Your task to perform on an android device: Show me recent news Image 0: 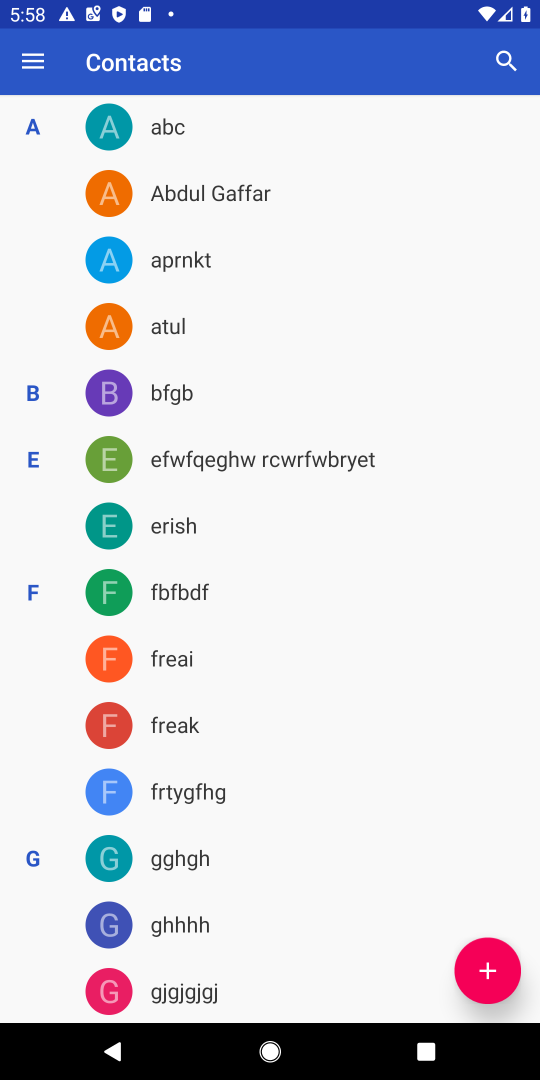
Step 0: press home button
Your task to perform on an android device: Show me recent news Image 1: 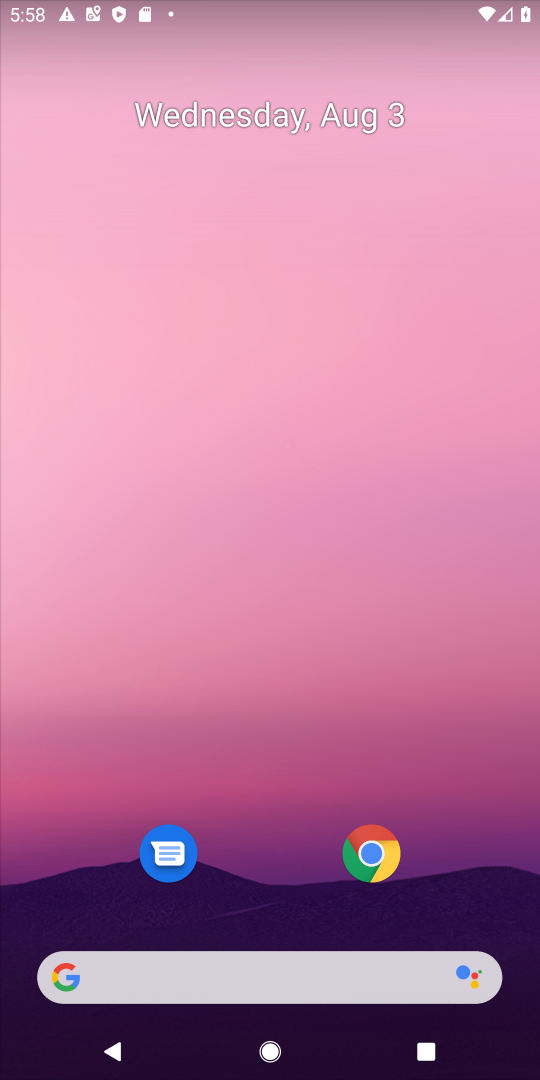
Step 1: drag from (478, 839) to (499, 298)
Your task to perform on an android device: Show me recent news Image 2: 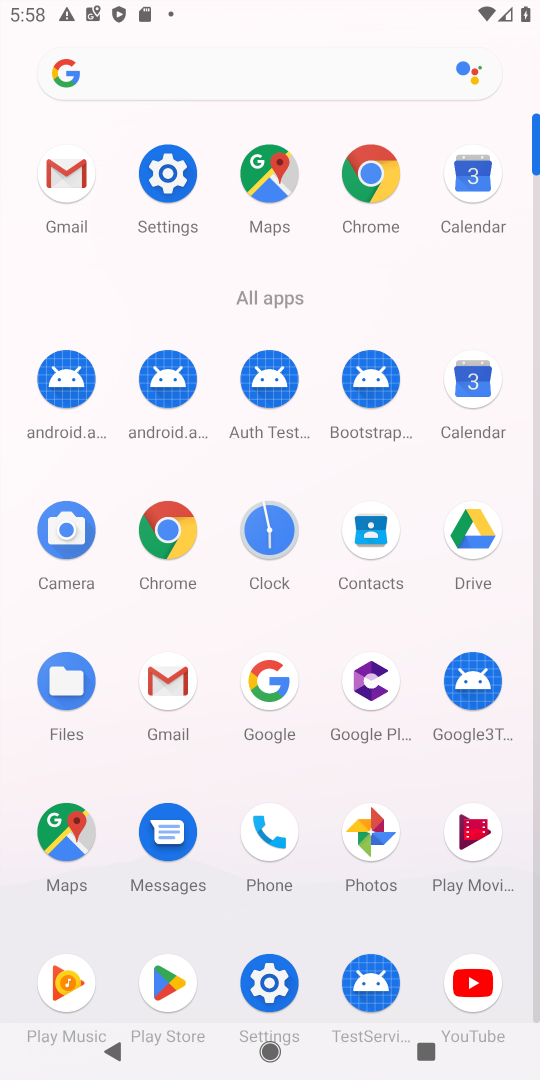
Step 2: click (268, 668)
Your task to perform on an android device: Show me recent news Image 3: 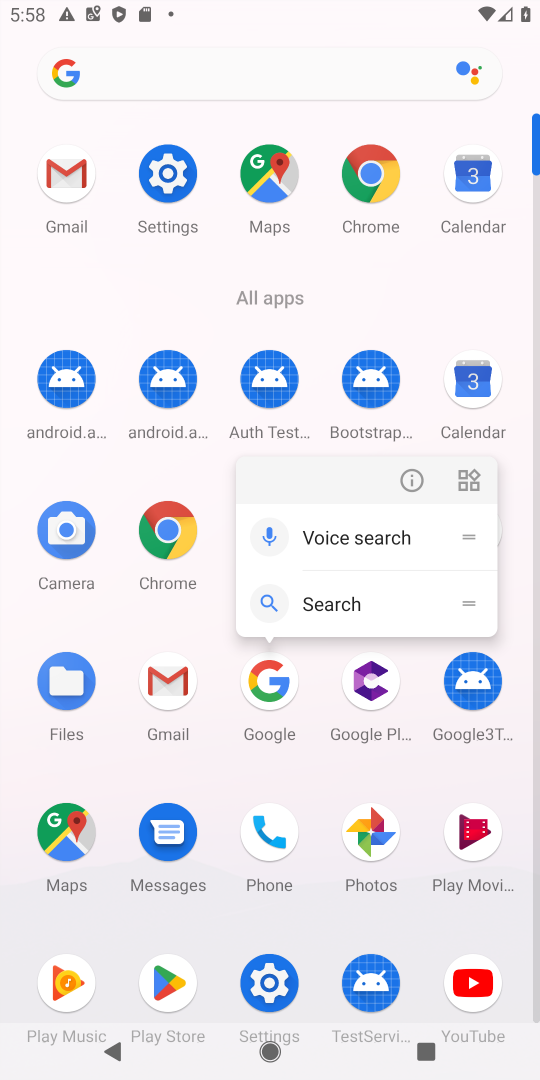
Step 3: click (254, 685)
Your task to perform on an android device: Show me recent news Image 4: 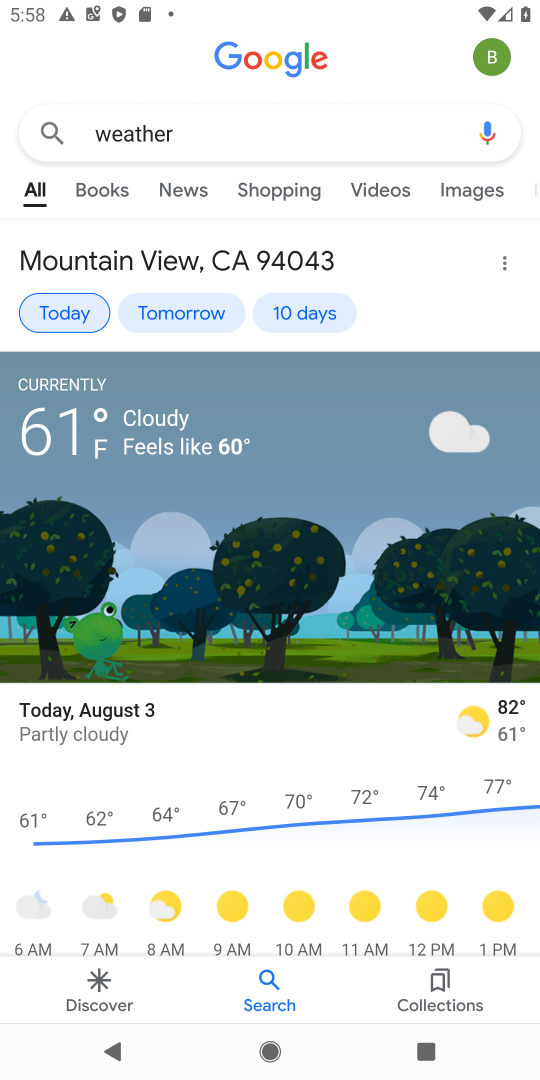
Step 4: click (414, 133)
Your task to perform on an android device: Show me recent news Image 5: 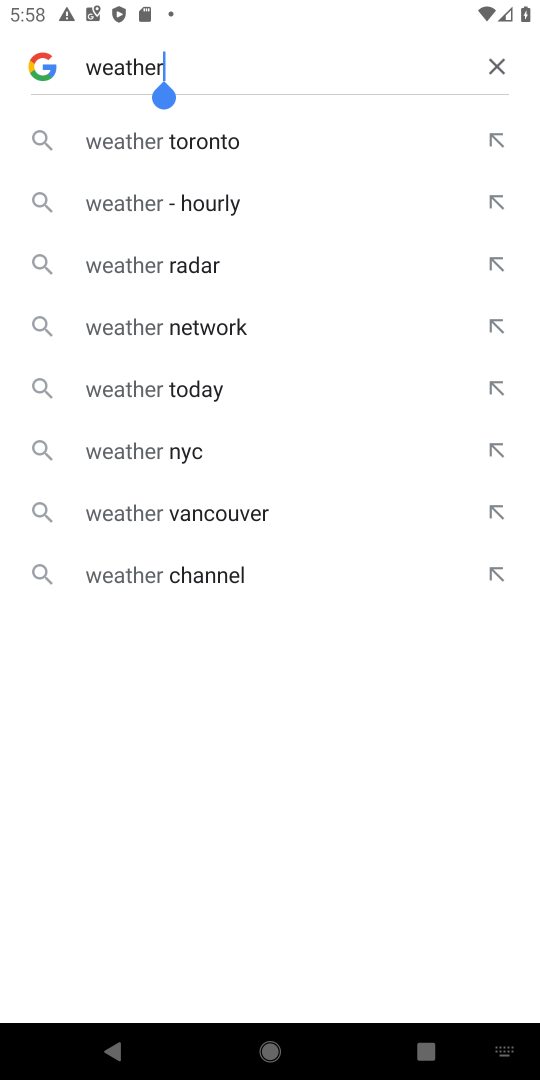
Step 5: click (504, 72)
Your task to perform on an android device: Show me recent news Image 6: 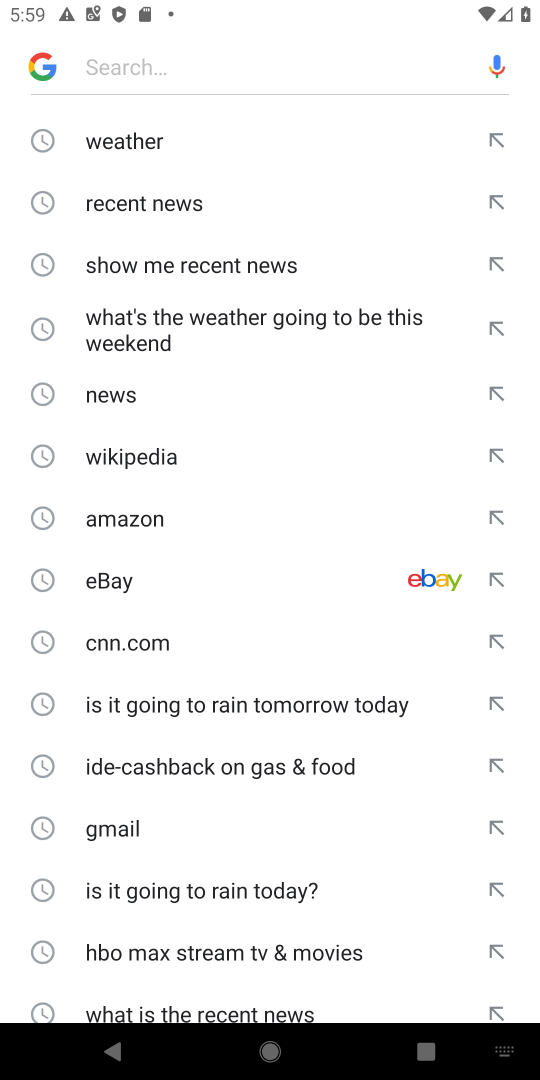
Step 6: type "recent news"
Your task to perform on an android device: Show me recent news Image 7: 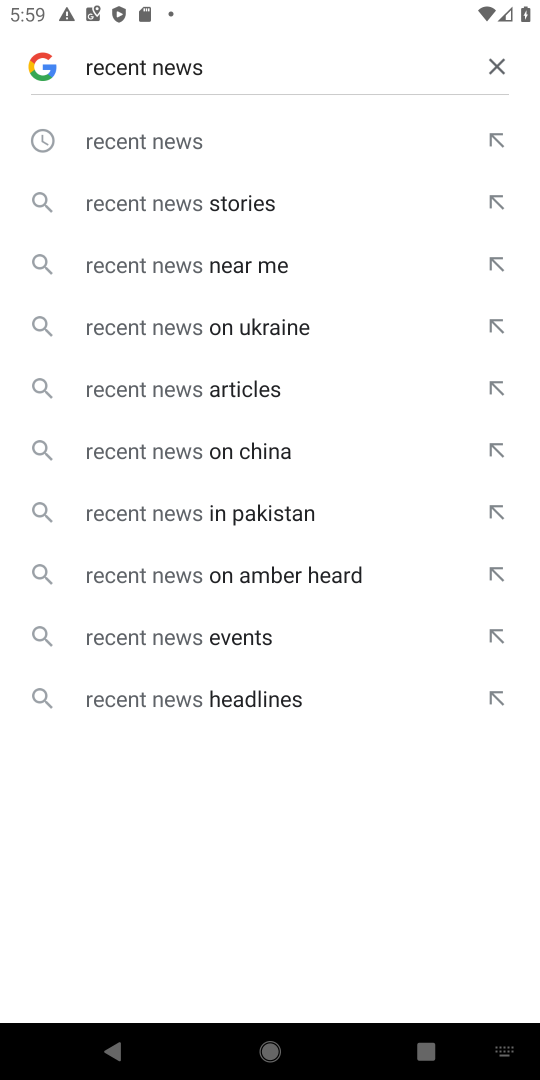
Step 7: click (292, 139)
Your task to perform on an android device: Show me recent news Image 8: 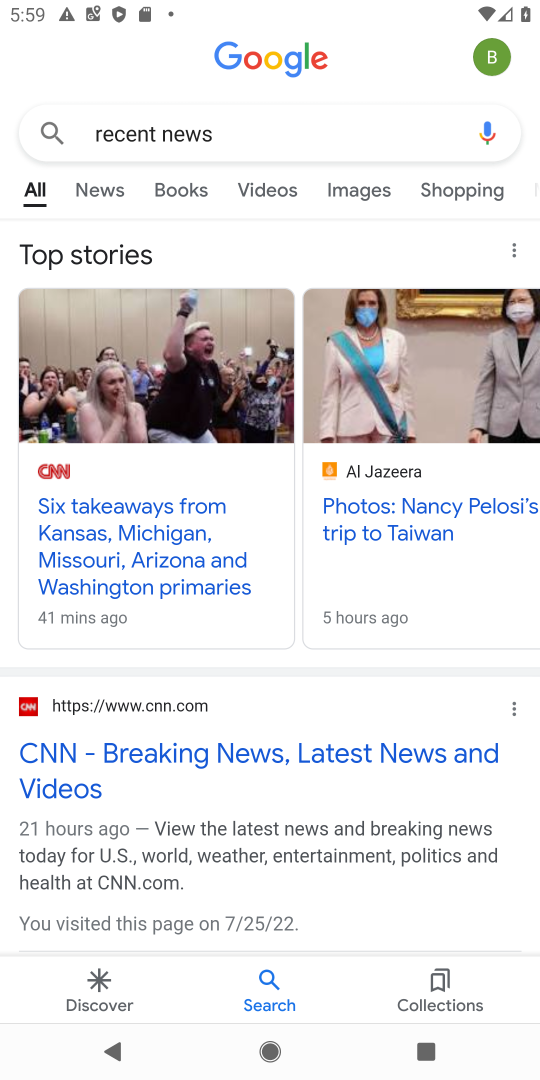
Step 8: task complete